Your task to perform on an android device: turn on notifications settings in the gmail app Image 0: 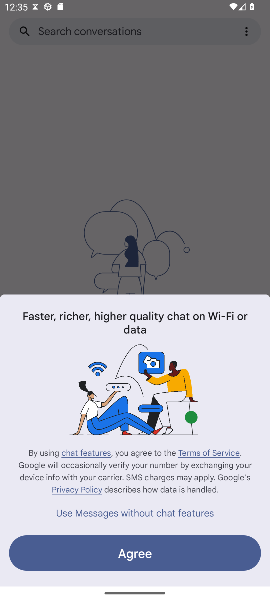
Step 0: press home button
Your task to perform on an android device: turn on notifications settings in the gmail app Image 1: 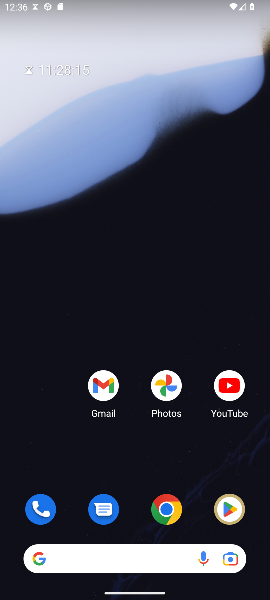
Step 1: click (96, 383)
Your task to perform on an android device: turn on notifications settings in the gmail app Image 2: 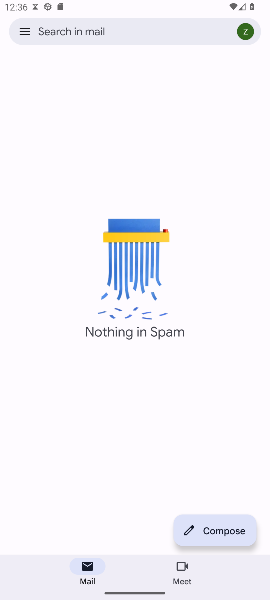
Step 2: click (29, 29)
Your task to perform on an android device: turn on notifications settings in the gmail app Image 3: 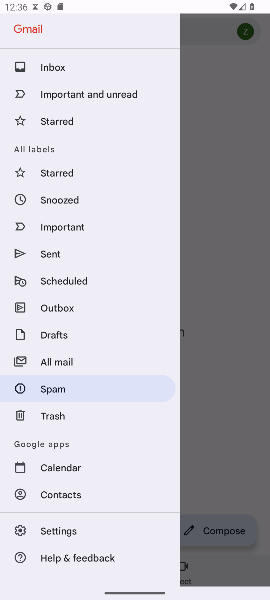
Step 3: click (45, 532)
Your task to perform on an android device: turn on notifications settings in the gmail app Image 4: 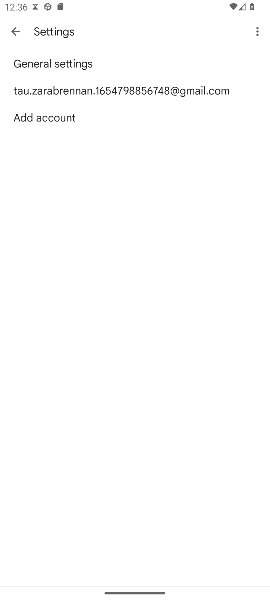
Step 4: click (103, 91)
Your task to perform on an android device: turn on notifications settings in the gmail app Image 5: 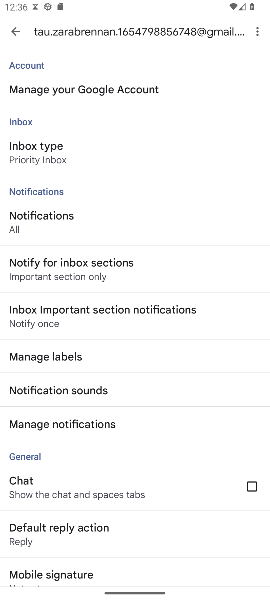
Step 5: click (71, 424)
Your task to perform on an android device: turn on notifications settings in the gmail app Image 6: 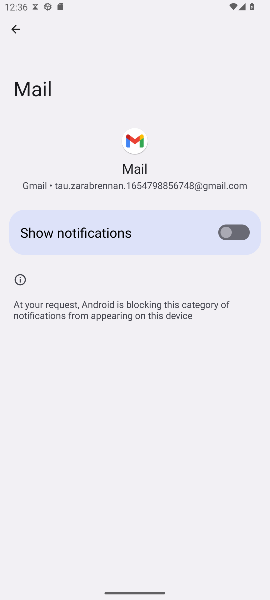
Step 6: click (230, 230)
Your task to perform on an android device: turn on notifications settings in the gmail app Image 7: 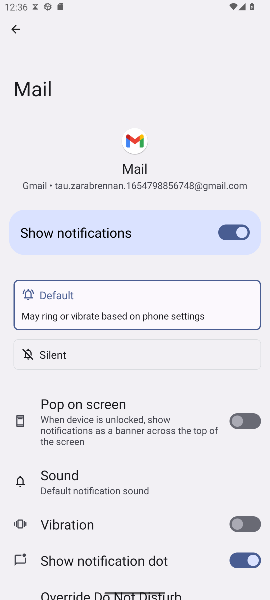
Step 7: task complete